Your task to perform on an android device: open app "Firefox Browser" Image 0: 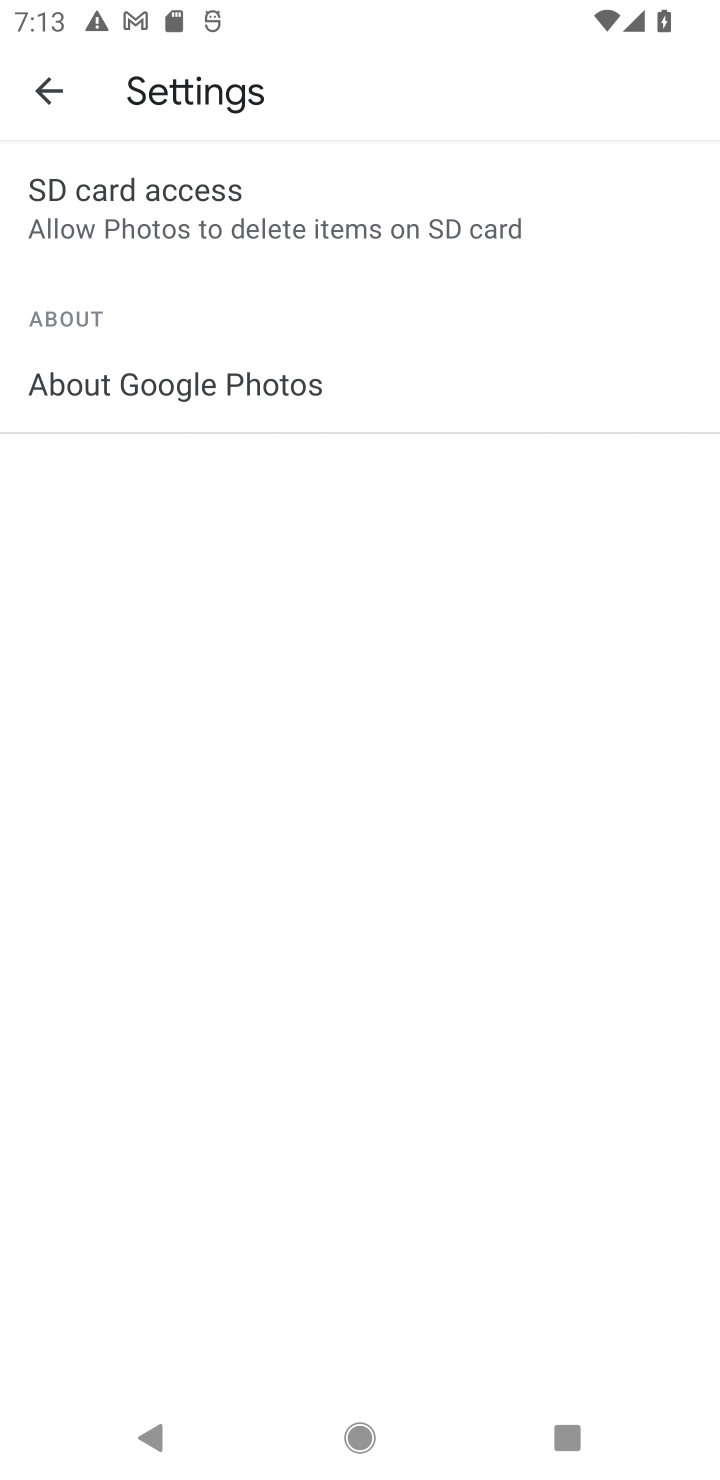
Step 0: press home button
Your task to perform on an android device: open app "Firefox Browser" Image 1: 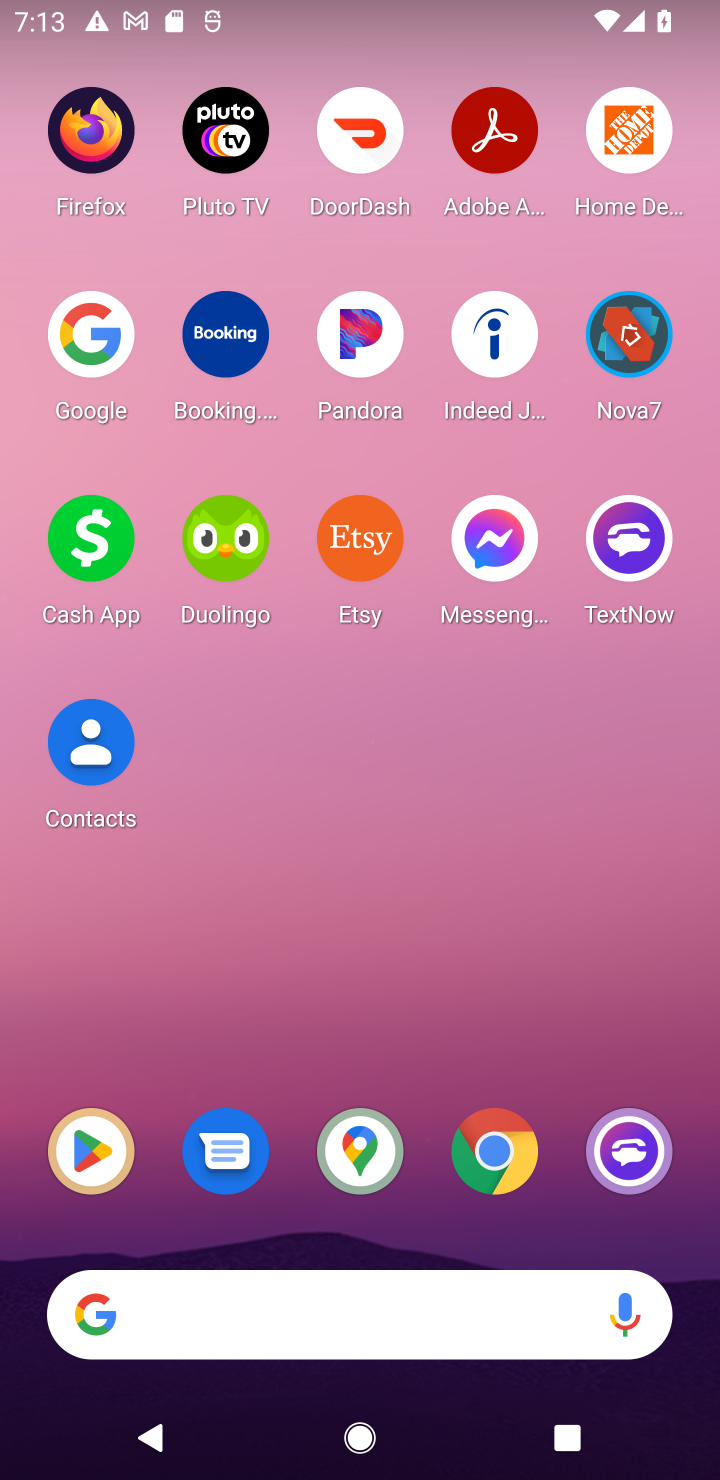
Step 1: drag from (503, 1314) to (470, 594)
Your task to perform on an android device: open app "Firefox Browser" Image 2: 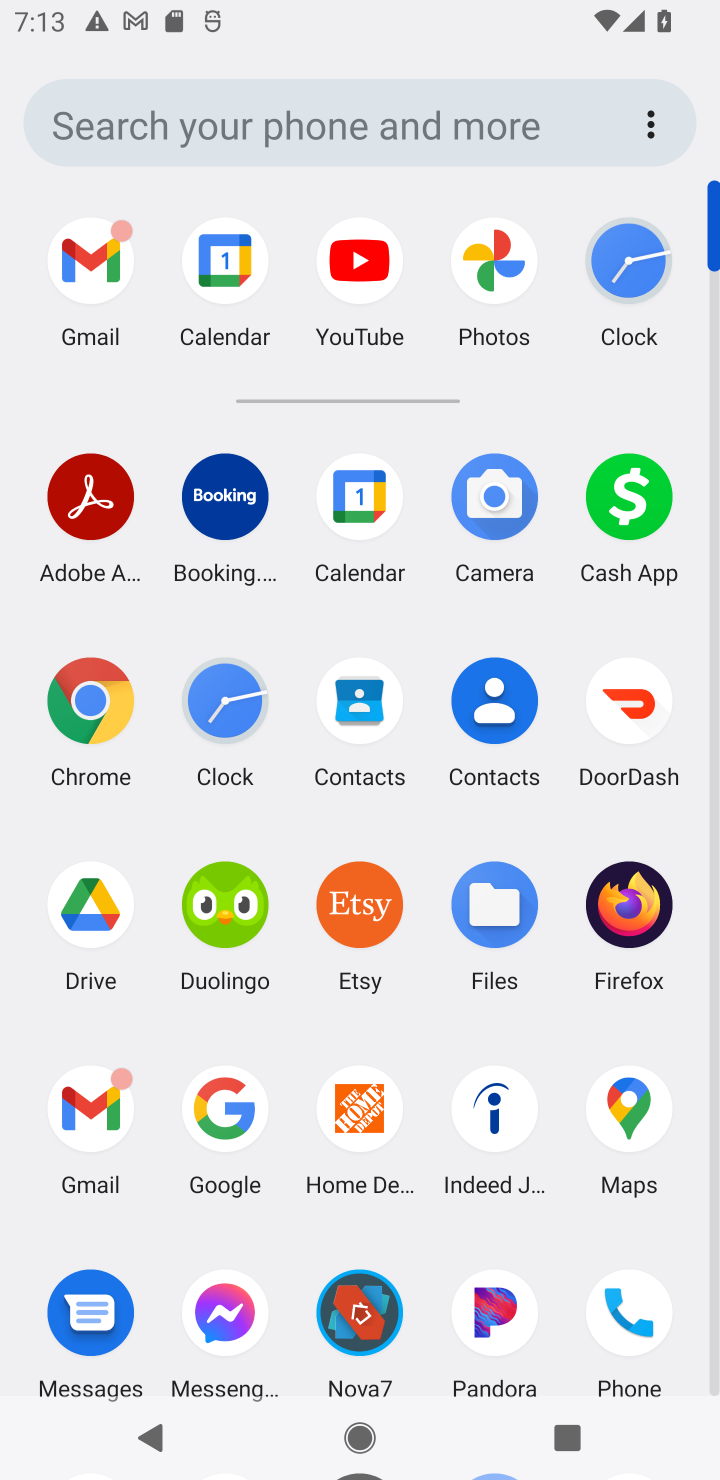
Step 2: drag from (538, 1229) to (537, 382)
Your task to perform on an android device: open app "Firefox Browser" Image 3: 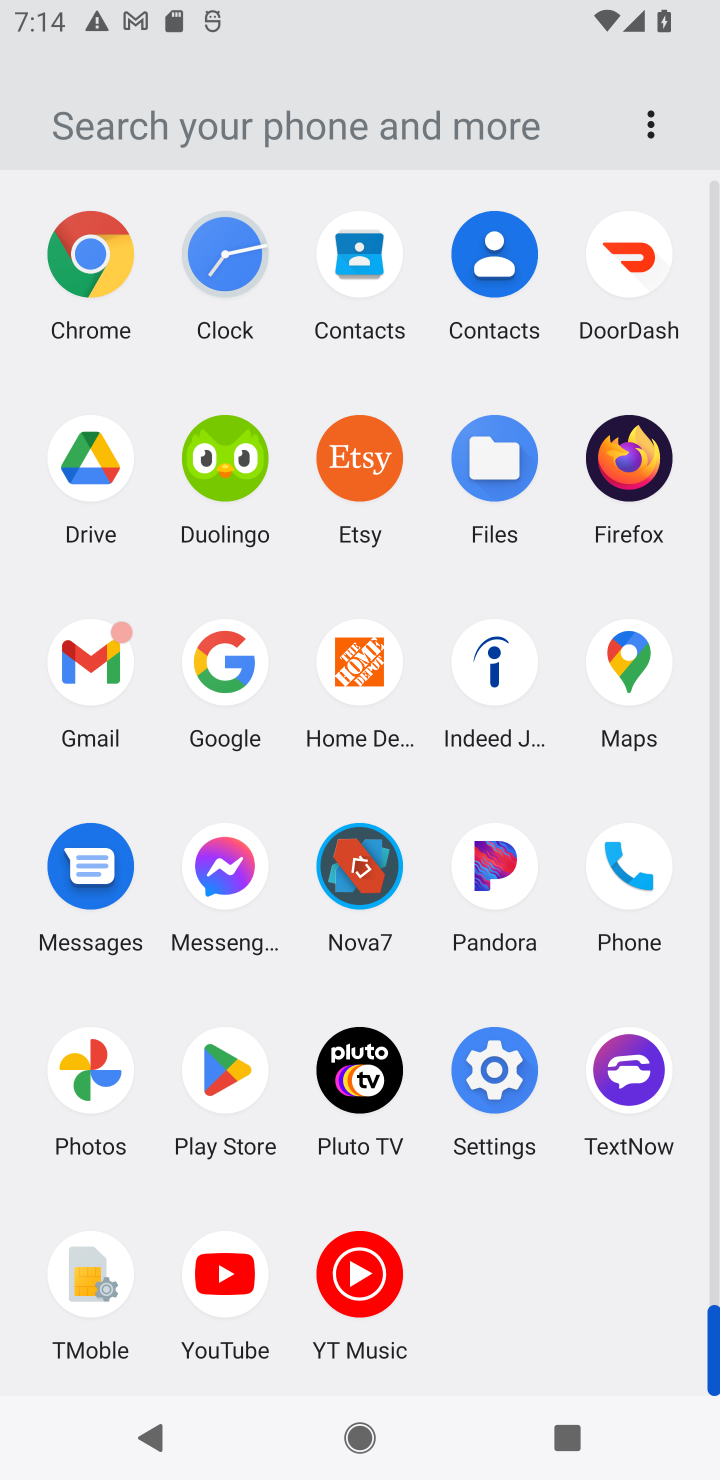
Step 3: click (198, 1089)
Your task to perform on an android device: open app "Firefox Browser" Image 4: 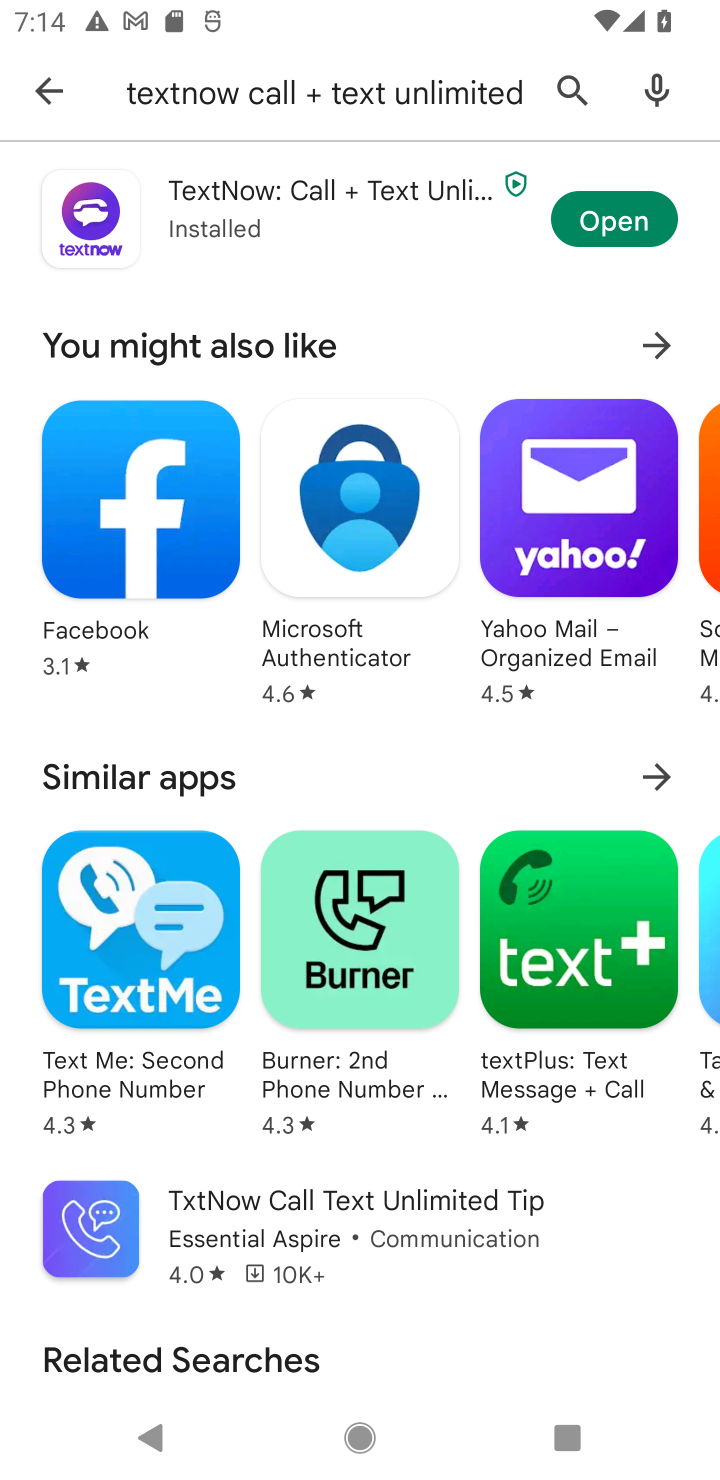
Step 4: click (564, 73)
Your task to perform on an android device: open app "Firefox Browser" Image 5: 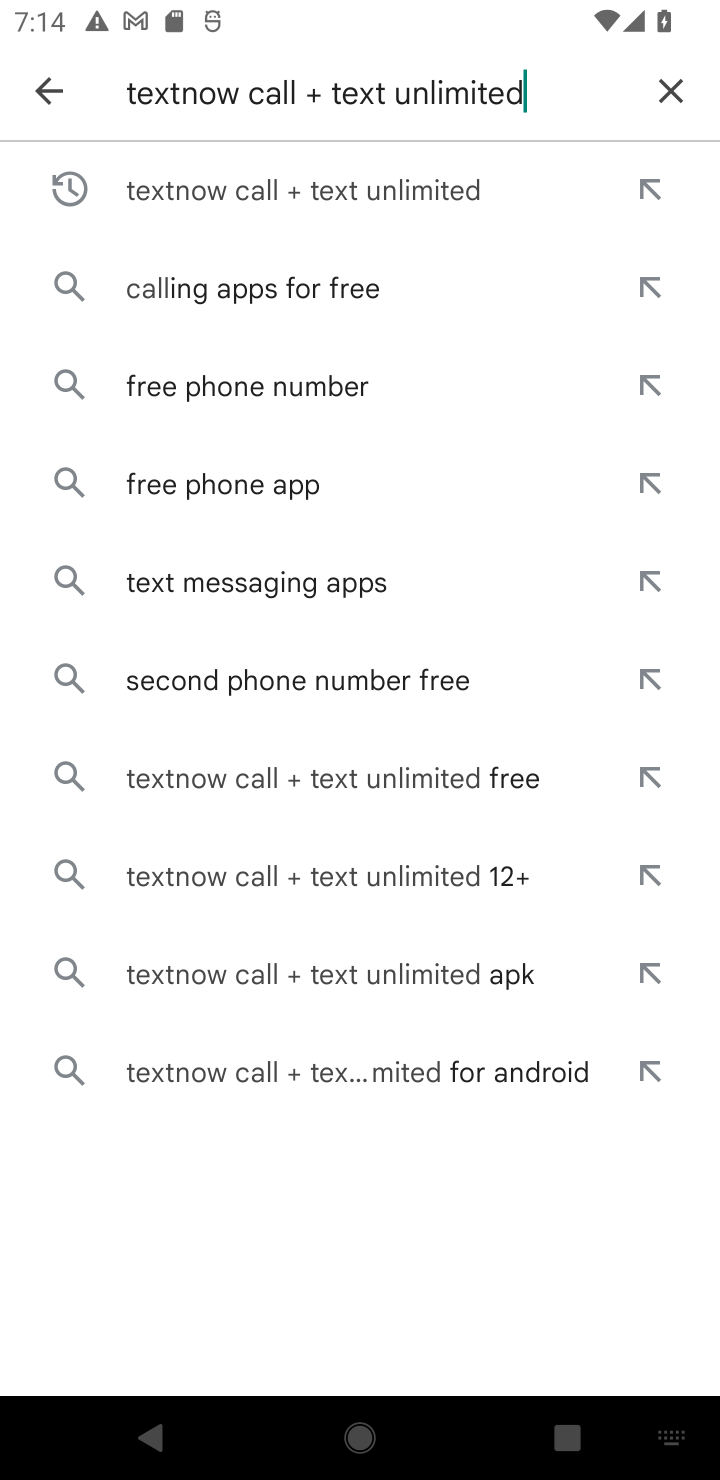
Step 5: click (675, 81)
Your task to perform on an android device: open app "Firefox Browser" Image 6: 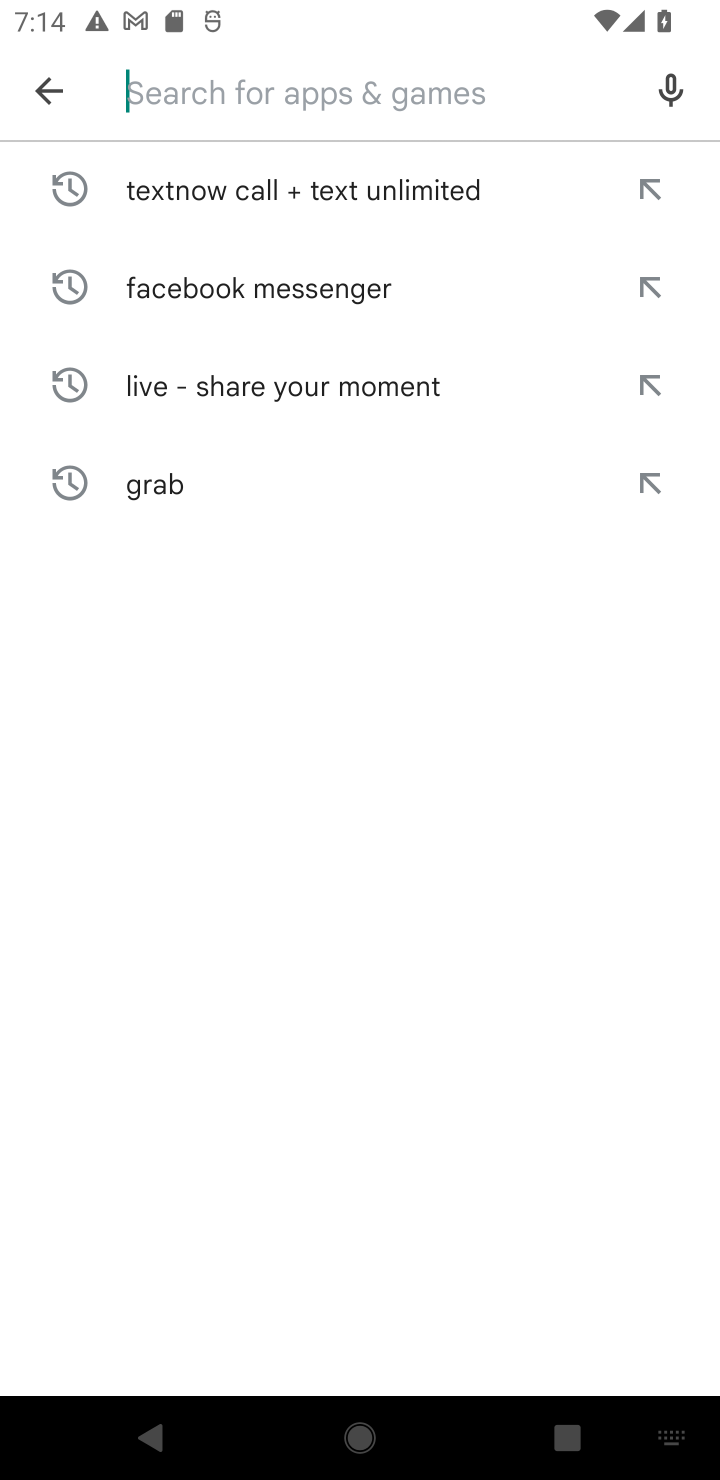
Step 6: type "firefox browser"
Your task to perform on an android device: open app "Firefox Browser" Image 7: 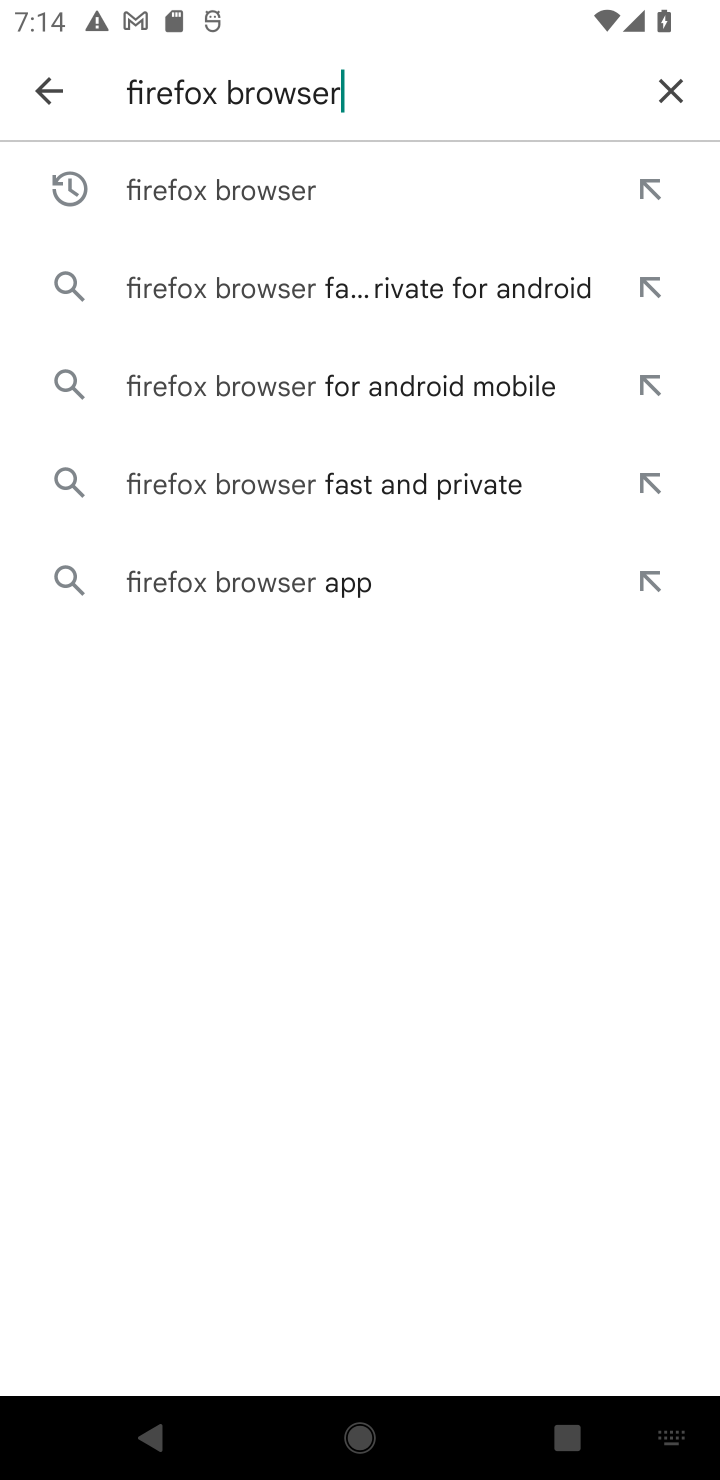
Step 7: click (238, 186)
Your task to perform on an android device: open app "Firefox Browser" Image 8: 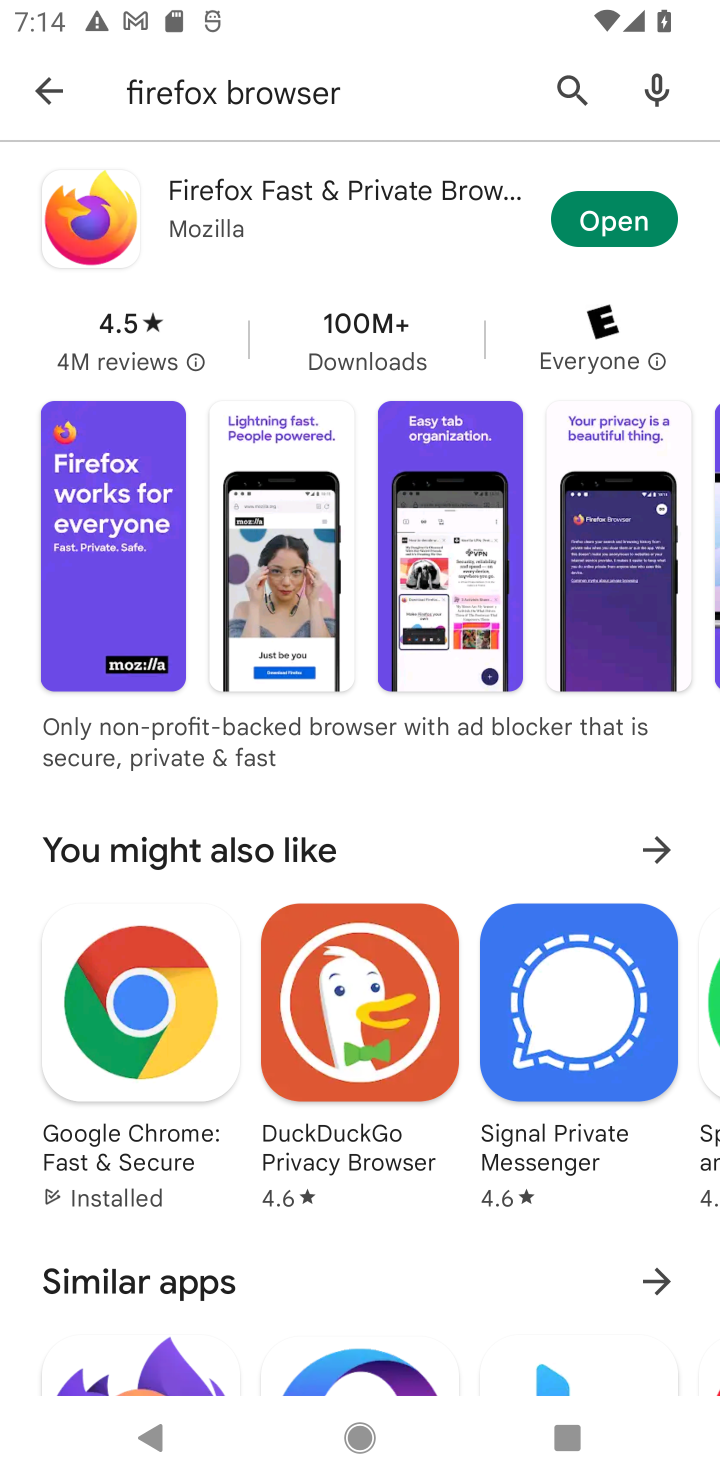
Step 8: click (636, 229)
Your task to perform on an android device: open app "Firefox Browser" Image 9: 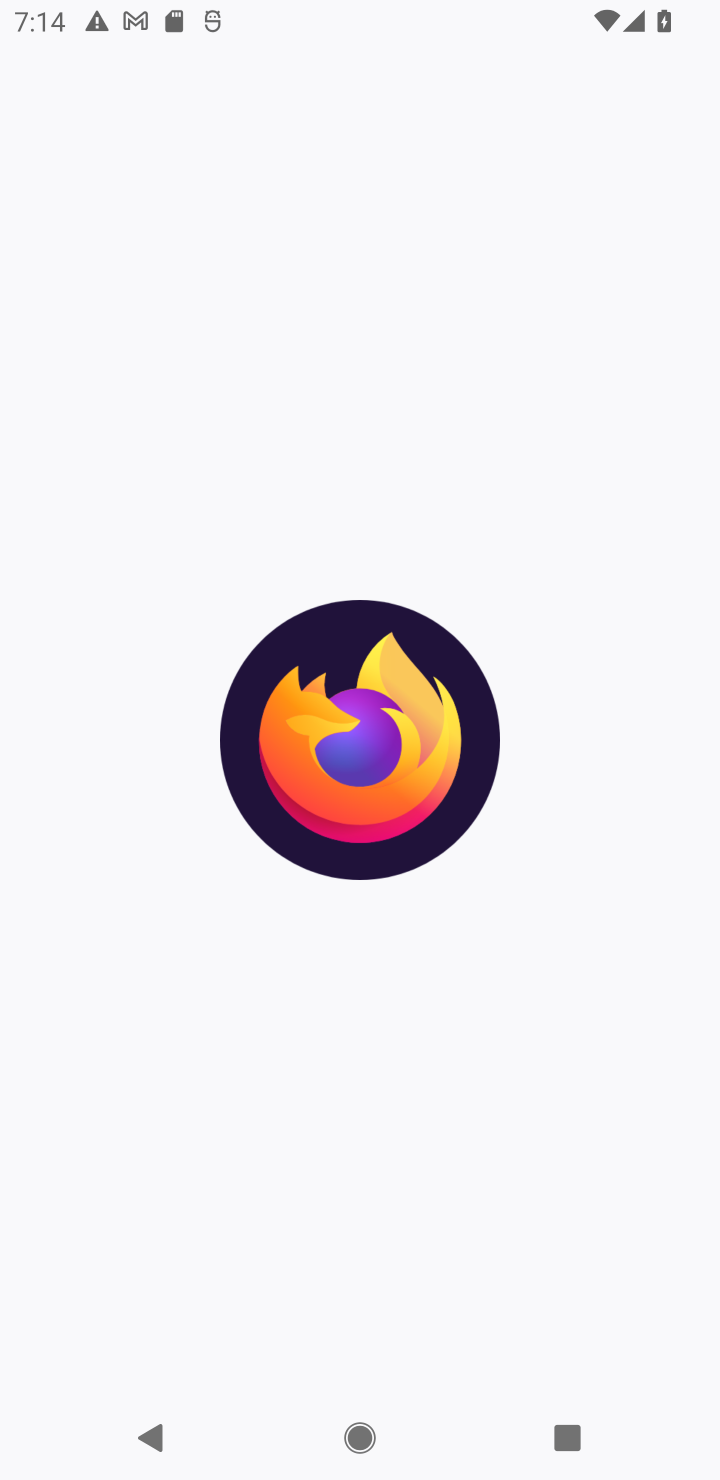
Step 9: task complete